Your task to perform on an android device: open chrome and create a bookmark for the current page Image 0: 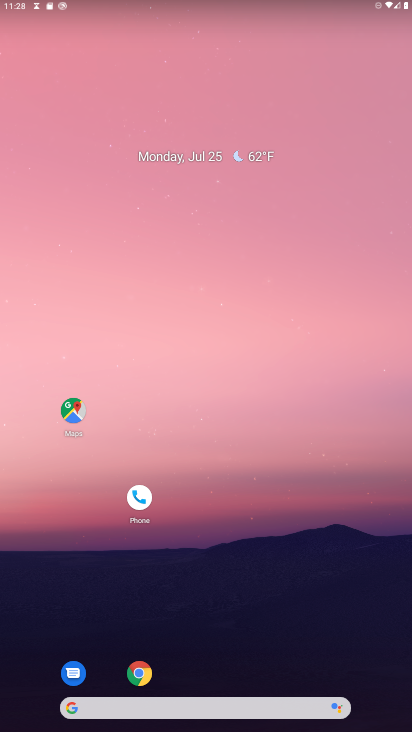
Step 0: press home button
Your task to perform on an android device: open chrome and create a bookmark for the current page Image 1: 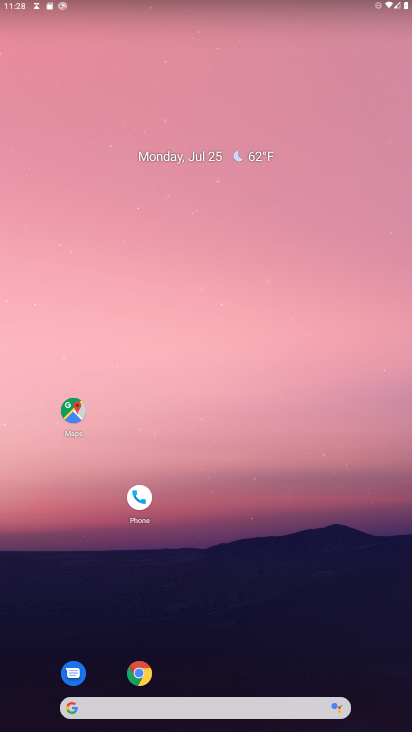
Step 1: drag from (261, 561) to (213, 112)
Your task to perform on an android device: open chrome and create a bookmark for the current page Image 2: 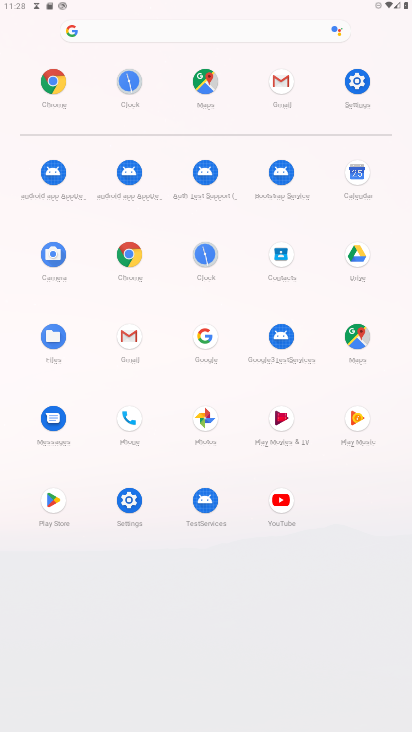
Step 2: click (42, 85)
Your task to perform on an android device: open chrome and create a bookmark for the current page Image 3: 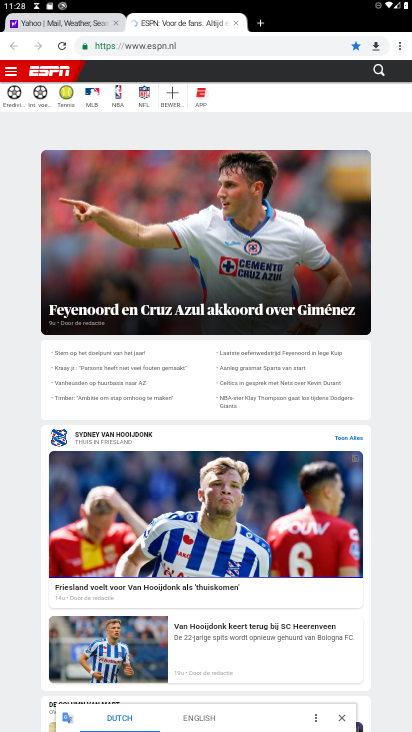
Step 3: task complete